Your task to perform on an android device: turn pop-ups off in chrome Image 0: 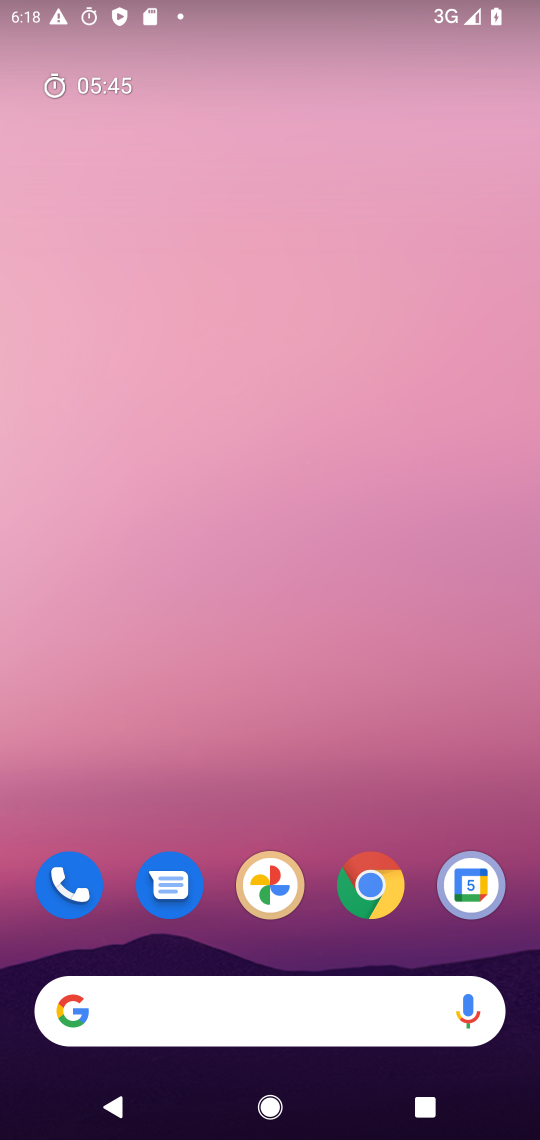
Step 0: click (362, 900)
Your task to perform on an android device: turn pop-ups off in chrome Image 1: 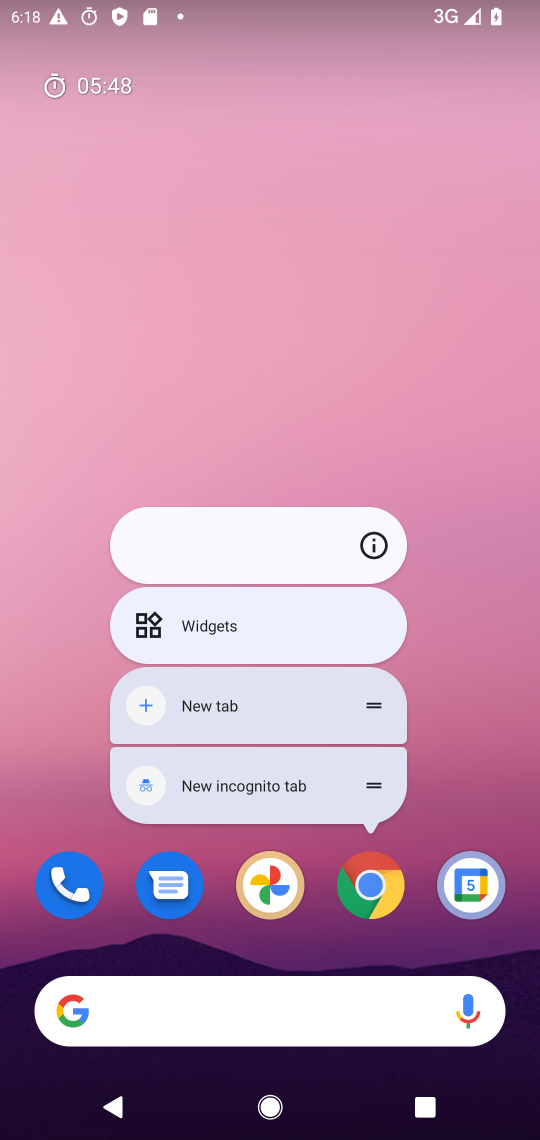
Step 1: click (359, 895)
Your task to perform on an android device: turn pop-ups off in chrome Image 2: 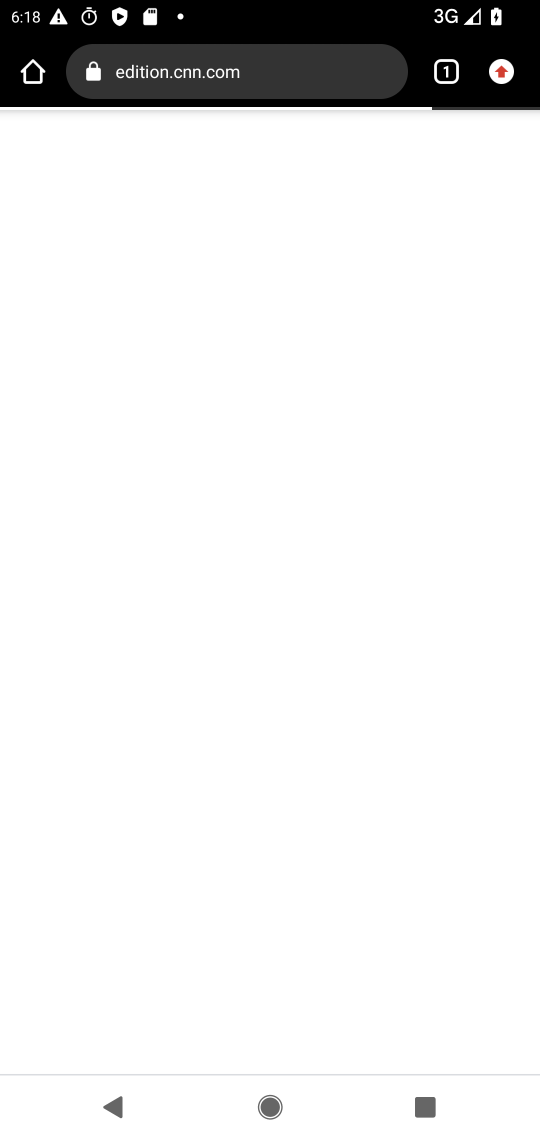
Step 2: click (507, 72)
Your task to perform on an android device: turn pop-ups off in chrome Image 3: 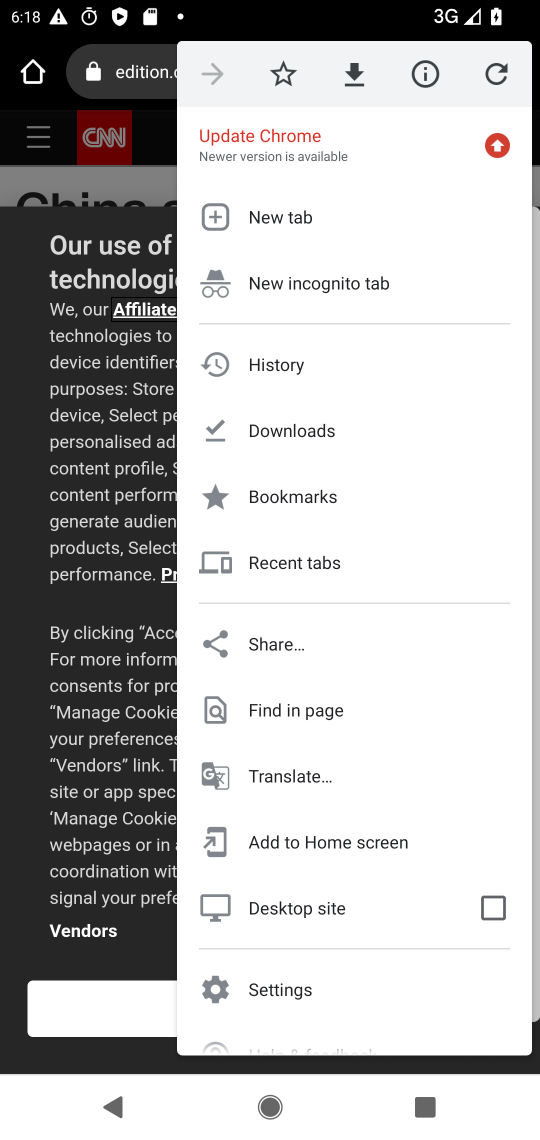
Step 3: click (282, 989)
Your task to perform on an android device: turn pop-ups off in chrome Image 4: 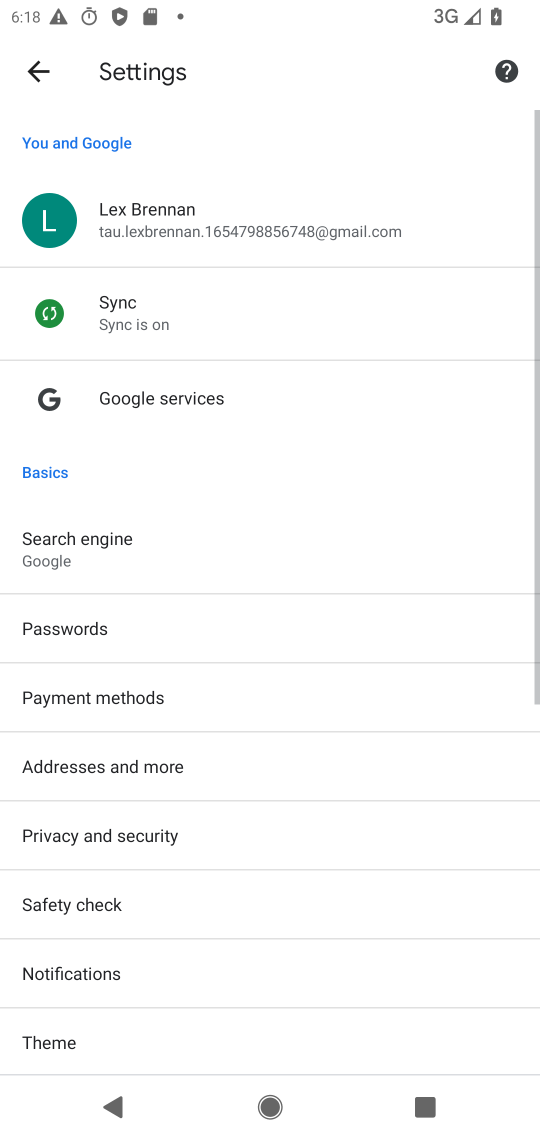
Step 4: drag from (195, 891) to (234, 201)
Your task to perform on an android device: turn pop-ups off in chrome Image 5: 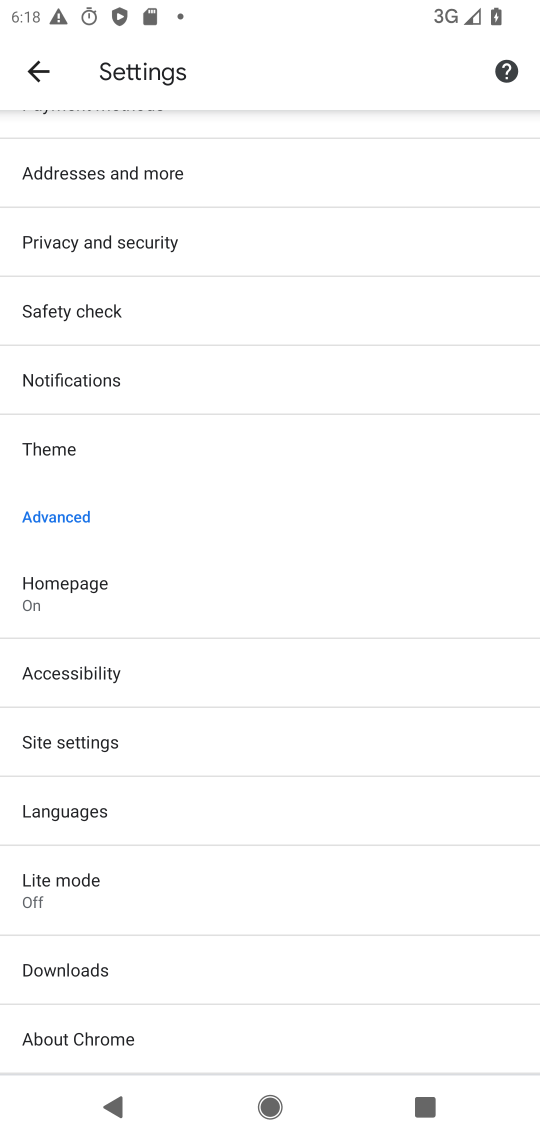
Step 5: click (88, 751)
Your task to perform on an android device: turn pop-ups off in chrome Image 6: 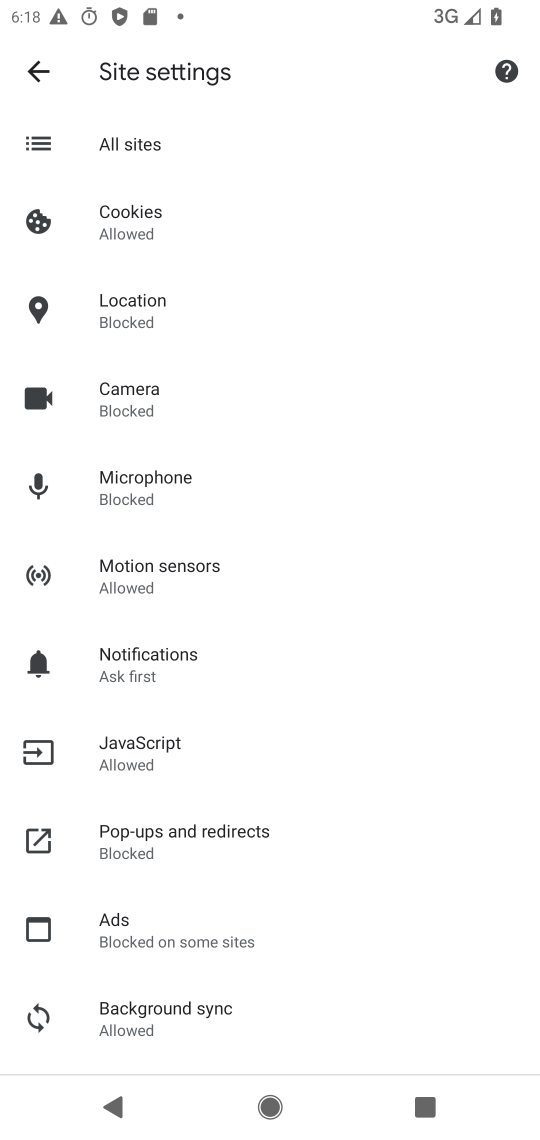
Step 6: click (201, 843)
Your task to perform on an android device: turn pop-ups off in chrome Image 7: 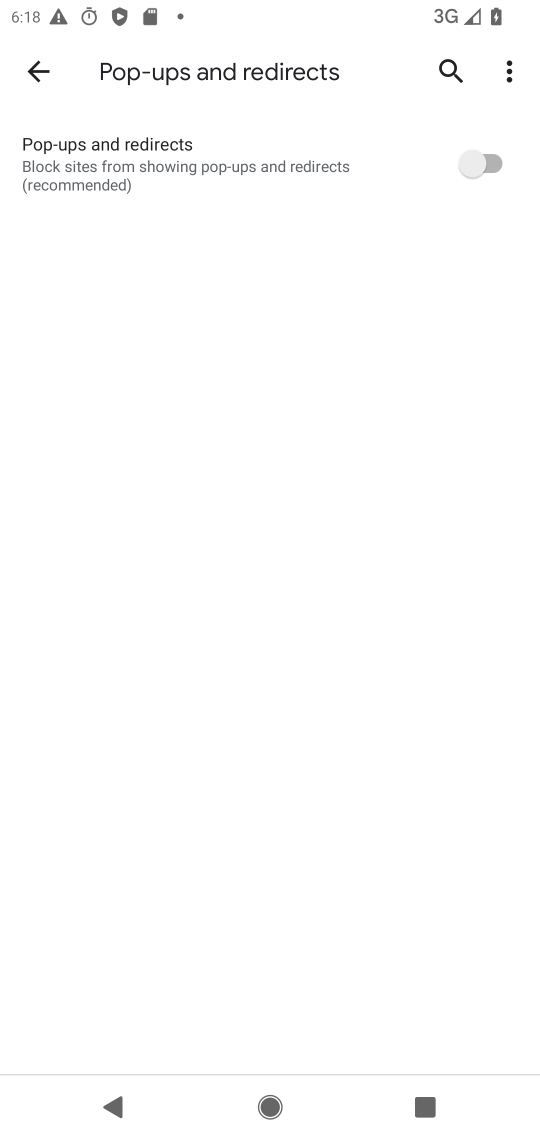
Step 7: task complete